Your task to perform on an android device: make emails show in primary in the gmail app Image 0: 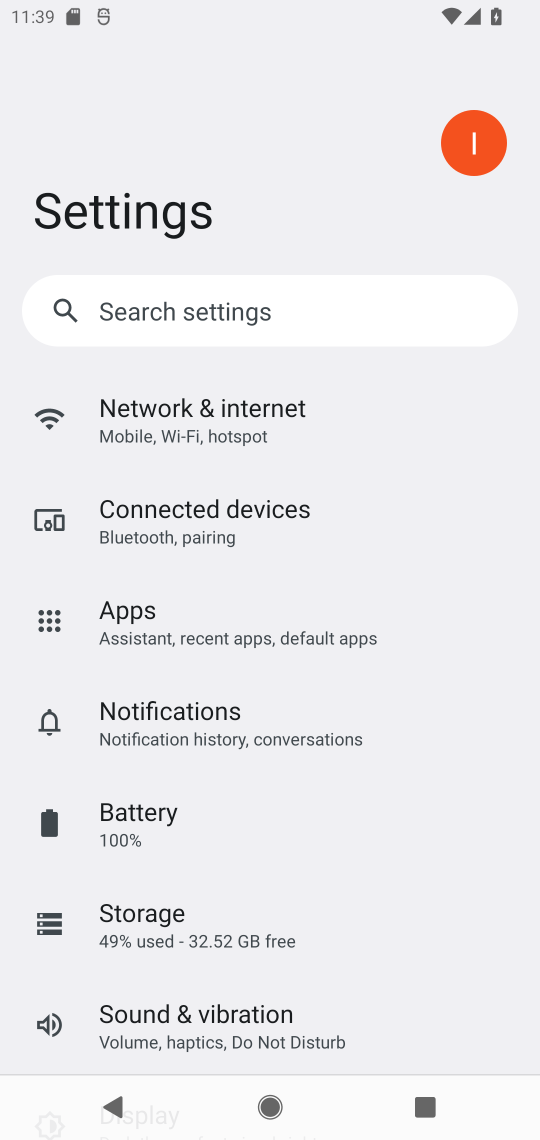
Step 0: press home button
Your task to perform on an android device: make emails show in primary in the gmail app Image 1: 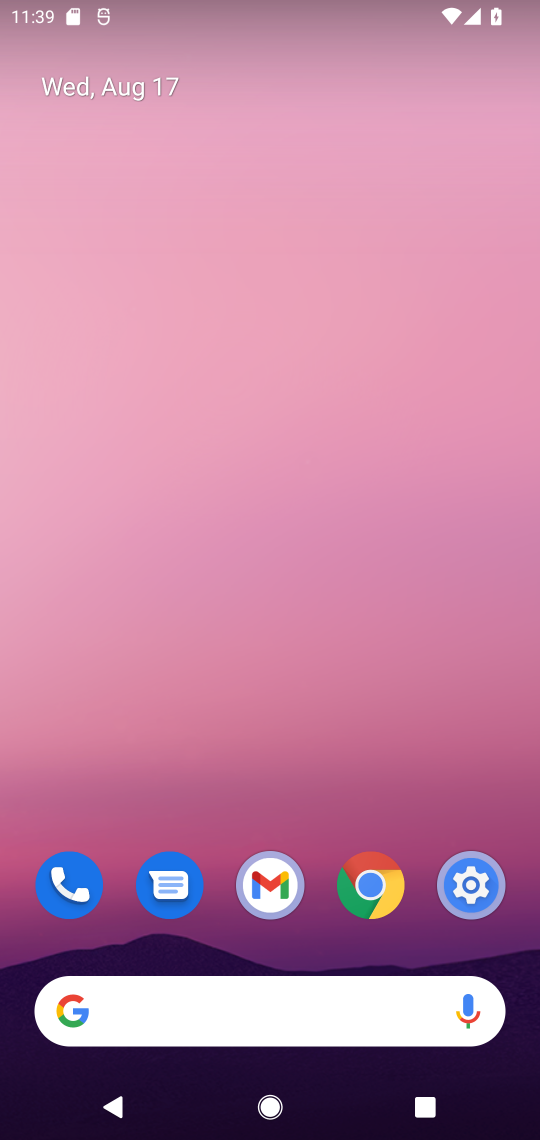
Step 1: drag from (390, 802) to (283, 55)
Your task to perform on an android device: make emails show in primary in the gmail app Image 2: 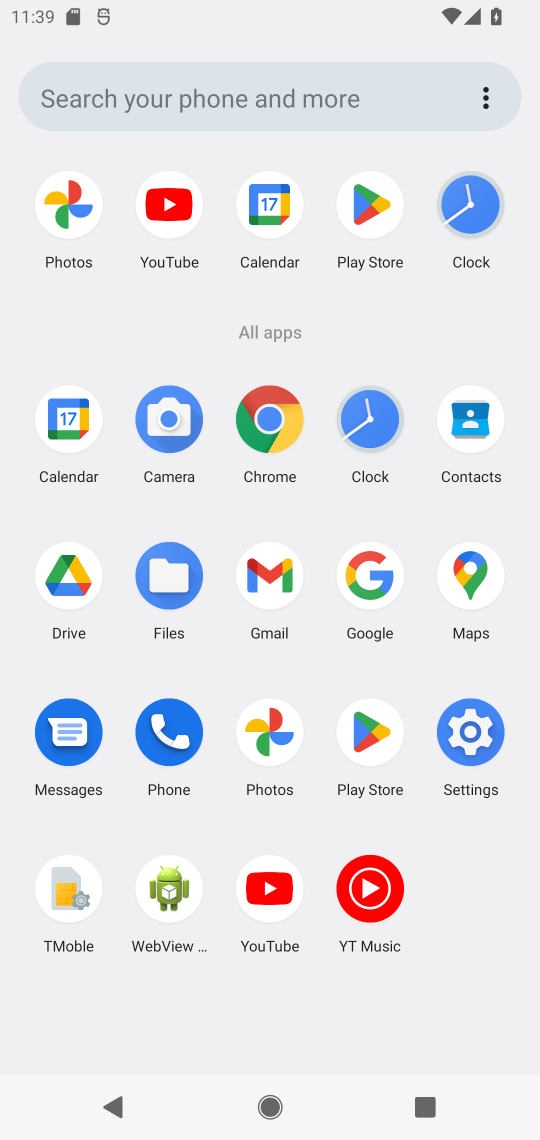
Step 2: click (260, 596)
Your task to perform on an android device: make emails show in primary in the gmail app Image 3: 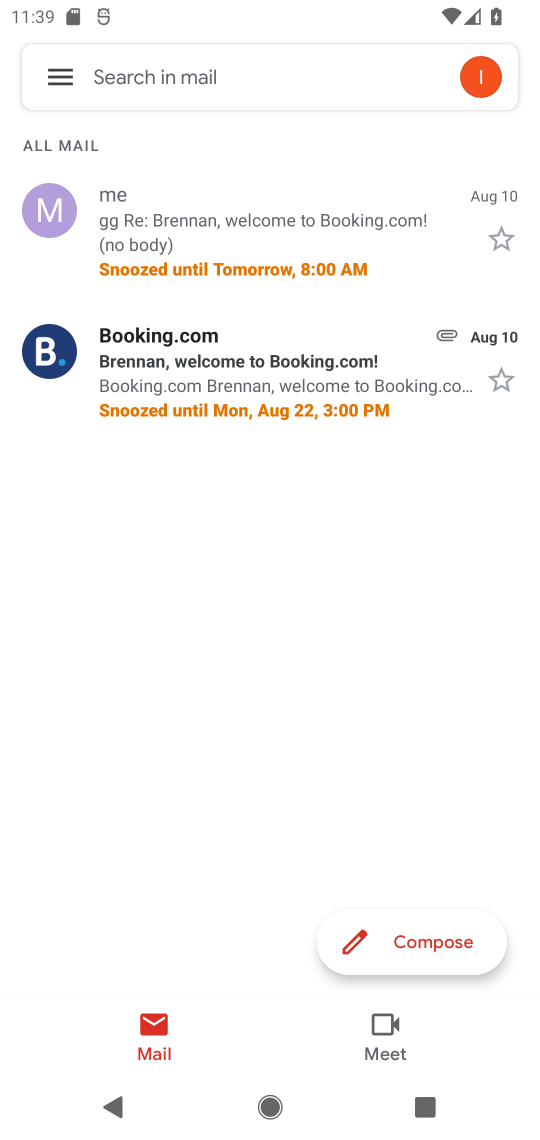
Step 3: click (51, 78)
Your task to perform on an android device: make emails show in primary in the gmail app Image 4: 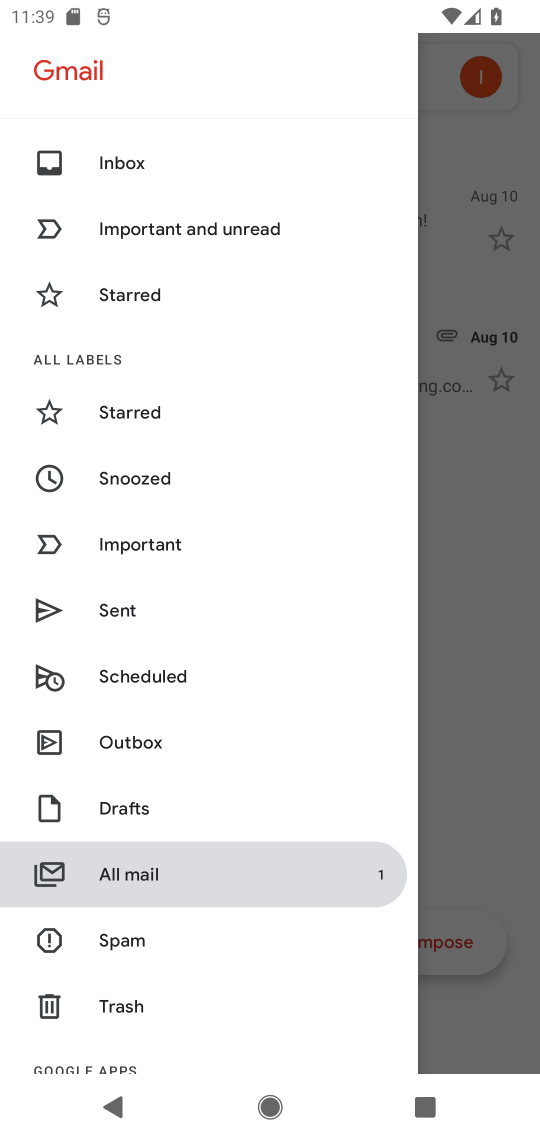
Step 4: drag from (223, 902) to (187, 431)
Your task to perform on an android device: make emails show in primary in the gmail app Image 5: 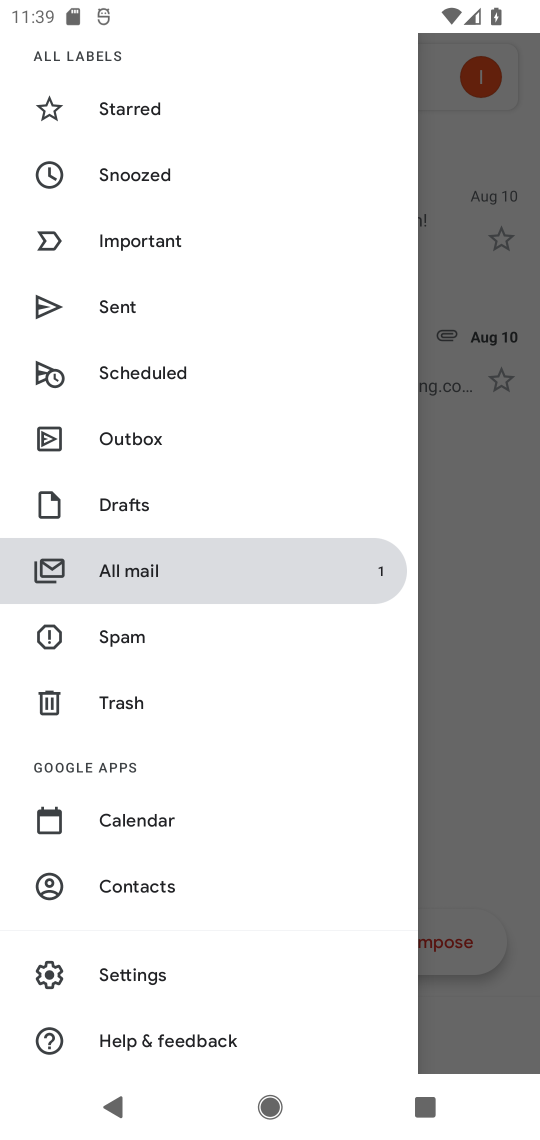
Step 5: click (239, 973)
Your task to perform on an android device: make emails show in primary in the gmail app Image 6: 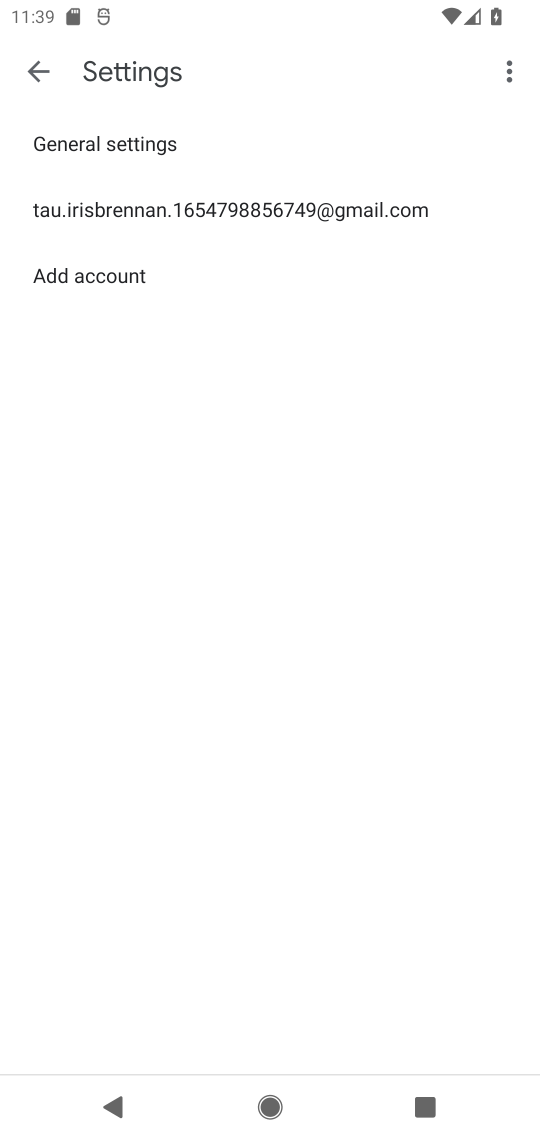
Step 6: click (318, 204)
Your task to perform on an android device: make emails show in primary in the gmail app Image 7: 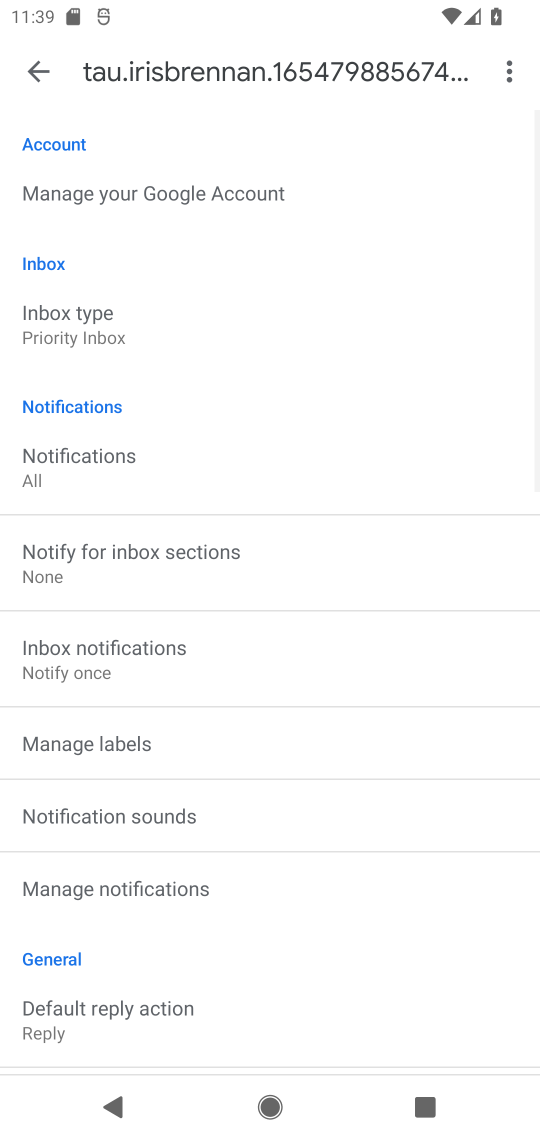
Step 7: click (70, 334)
Your task to perform on an android device: make emails show in primary in the gmail app Image 8: 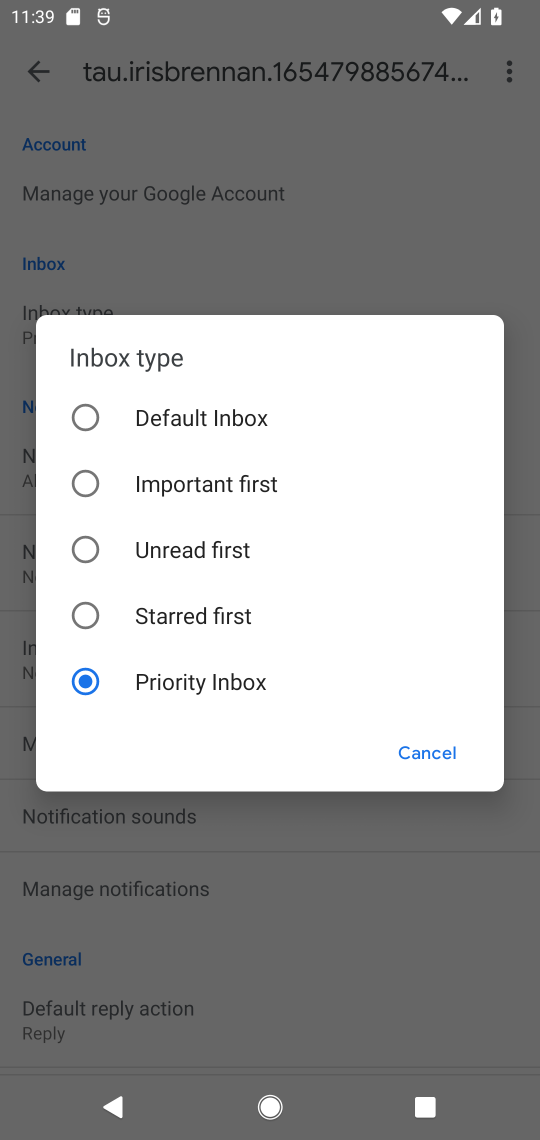
Step 8: click (155, 416)
Your task to perform on an android device: make emails show in primary in the gmail app Image 9: 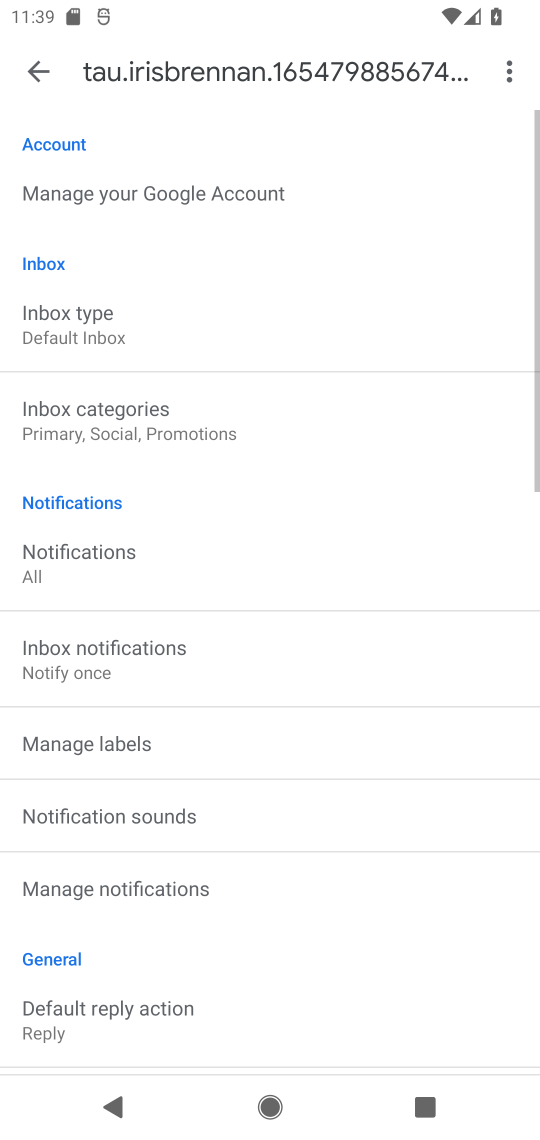
Step 9: click (113, 414)
Your task to perform on an android device: make emails show in primary in the gmail app Image 10: 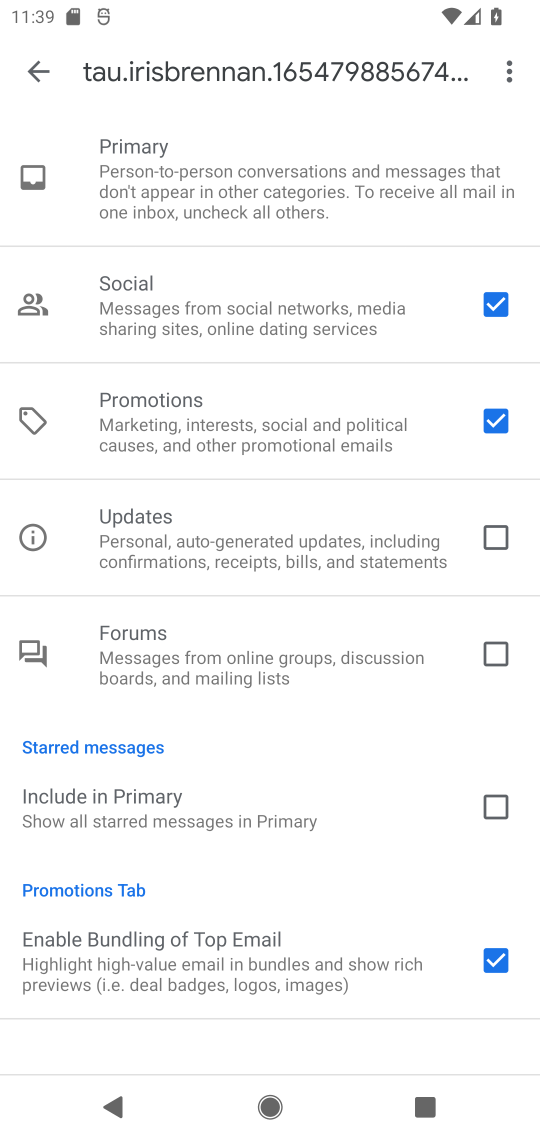
Step 10: click (488, 428)
Your task to perform on an android device: make emails show in primary in the gmail app Image 11: 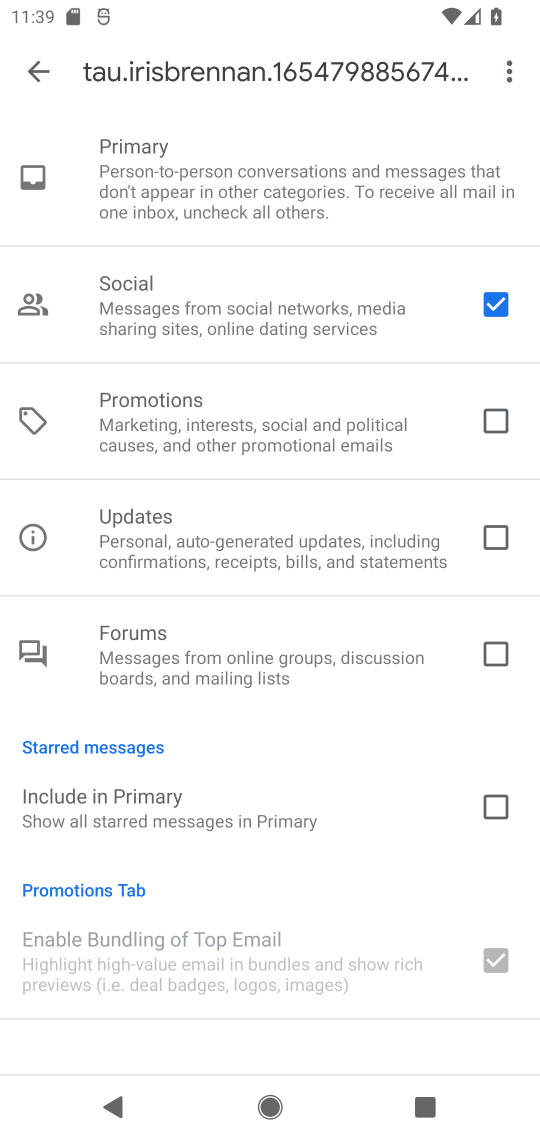
Step 11: click (500, 298)
Your task to perform on an android device: make emails show in primary in the gmail app Image 12: 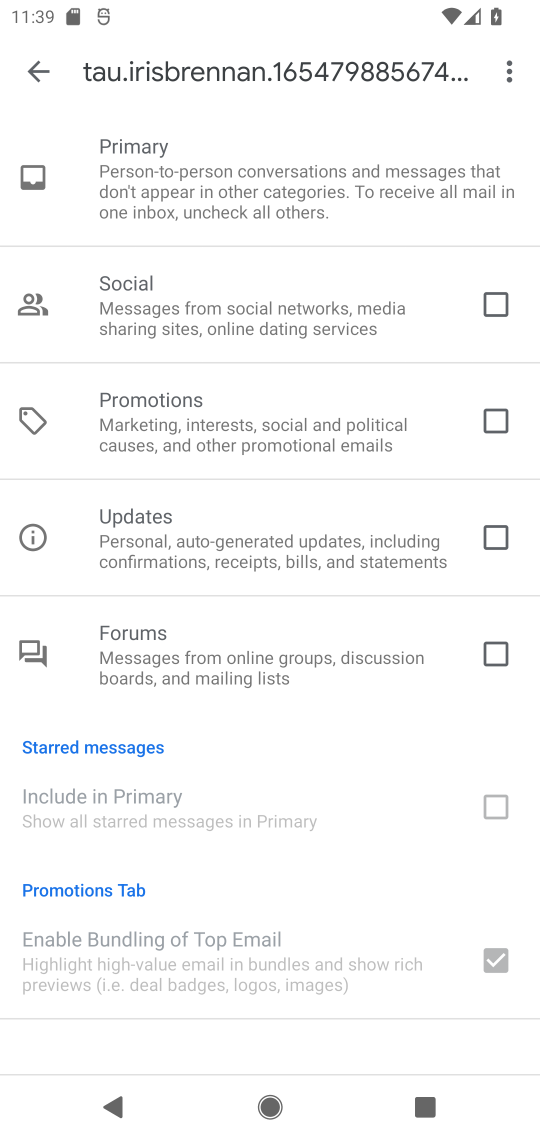
Step 12: click (36, 72)
Your task to perform on an android device: make emails show in primary in the gmail app Image 13: 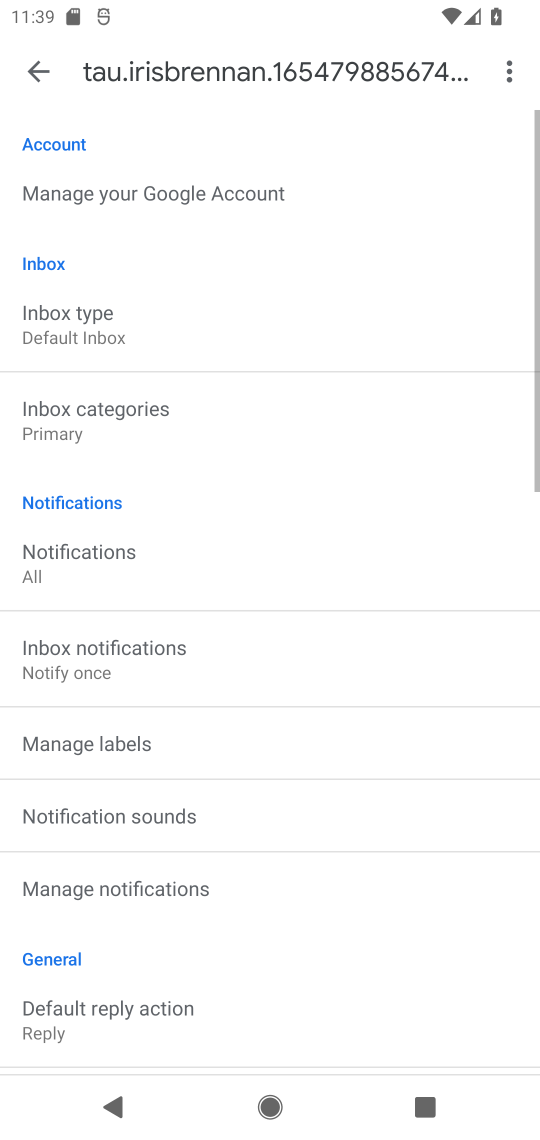
Step 13: task complete